Your task to perform on an android device: turn on priority inbox in the gmail app Image 0: 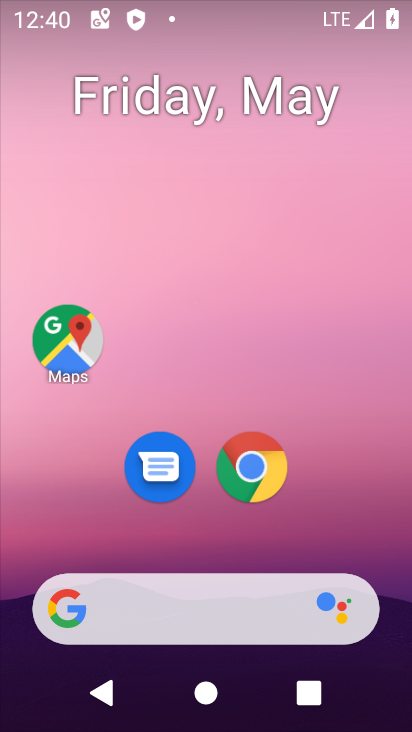
Step 0: drag from (343, 535) to (218, 91)
Your task to perform on an android device: turn on priority inbox in the gmail app Image 1: 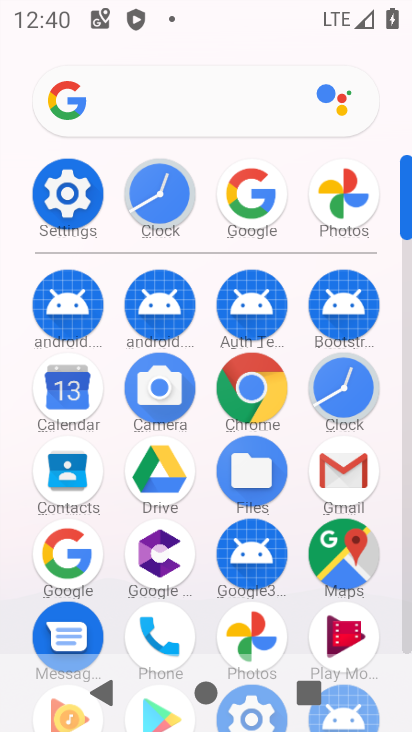
Step 1: click (342, 471)
Your task to perform on an android device: turn on priority inbox in the gmail app Image 2: 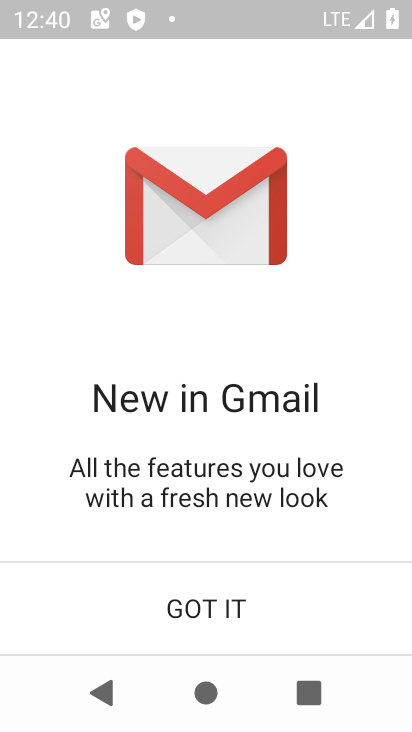
Step 2: click (220, 606)
Your task to perform on an android device: turn on priority inbox in the gmail app Image 3: 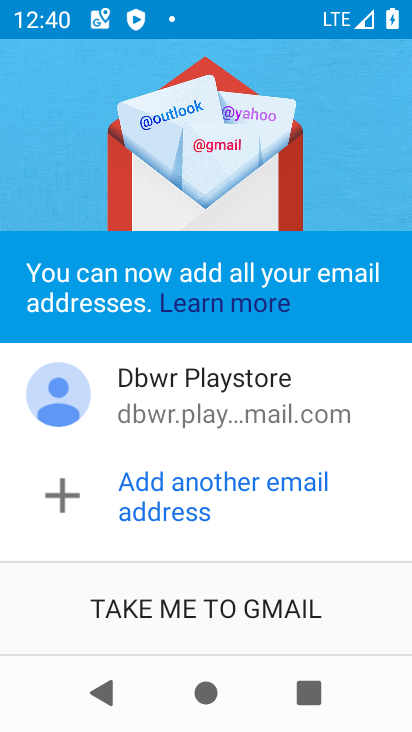
Step 3: click (220, 606)
Your task to perform on an android device: turn on priority inbox in the gmail app Image 4: 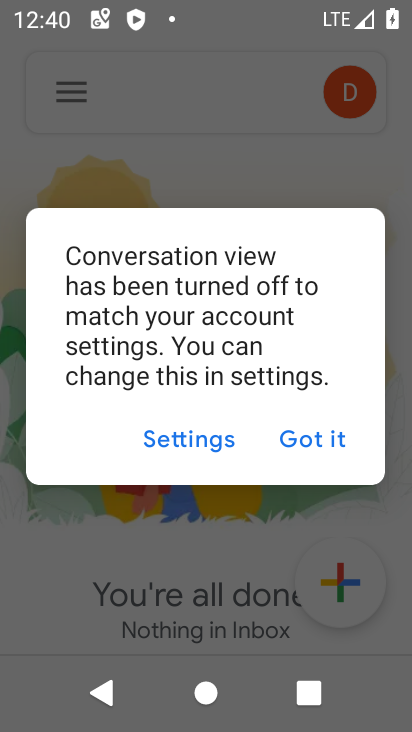
Step 4: click (322, 440)
Your task to perform on an android device: turn on priority inbox in the gmail app Image 5: 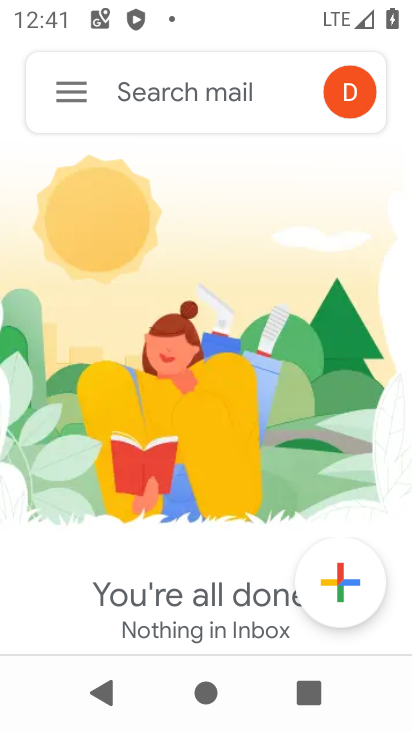
Step 5: click (71, 89)
Your task to perform on an android device: turn on priority inbox in the gmail app Image 6: 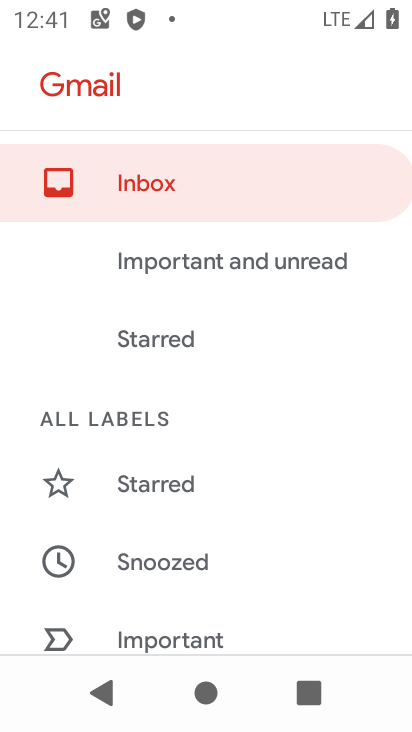
Step 6: drag from (216, 421) to (215, 243)
Your task to perform on an android device: turn on priority inbox in the gmail app Image 7: 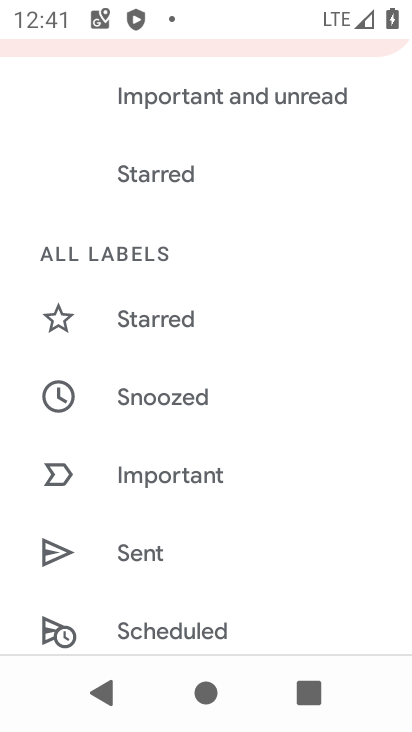
Step 7: drag from (207, 428) to (206, 249)
Your task to perform on an android device: turn on priority inbox in the gmail app Image 8: 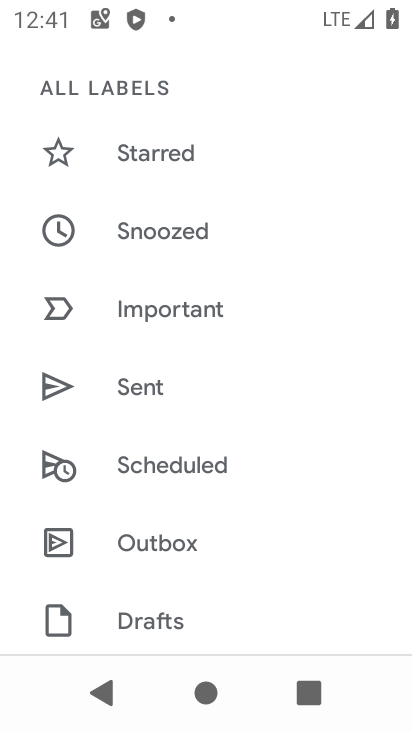
Step 8: drag from (173, 407) to (176, 240)
Your task to perform on an android device: turn on priority inbox in the gmail app Image 9: 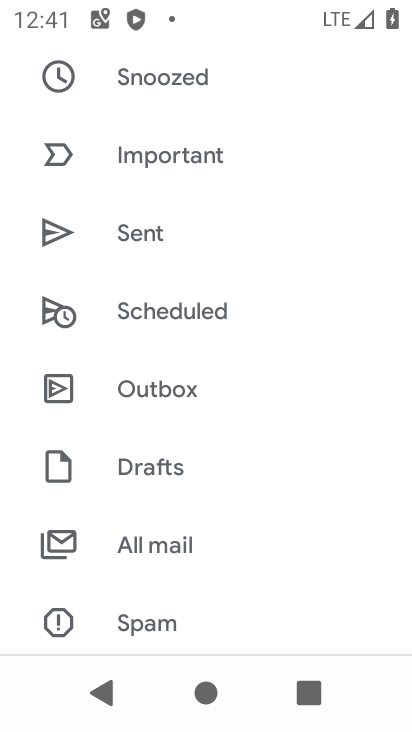
Step 9: drag from (147, 353) to (159, 223)
Your task to perform on an android device: turn on priority inbox in the gmail app Image 10: 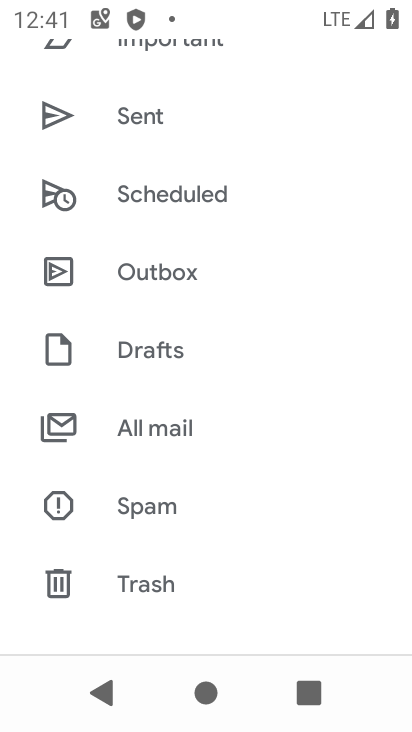
Step 10: drag from (166, 324) to (171, 184)
Your task to perform on an android device: turn on priority inbox in the gmail app Image 11: 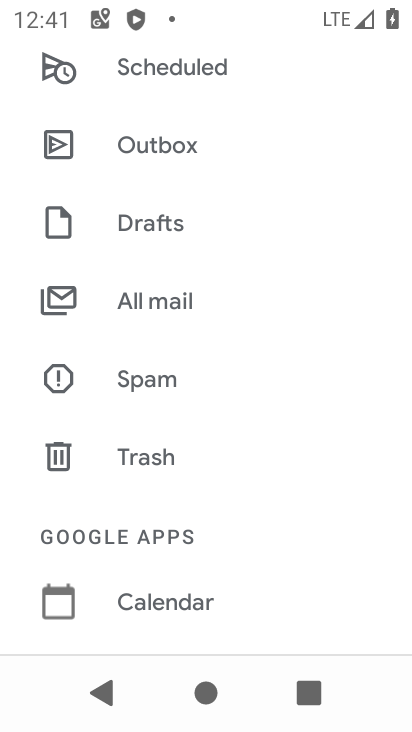
Step 11: drag from (150, 337) to (139, 163)
Your task to perform on an android device: turn on priority inbox in the gmail app Image 12: 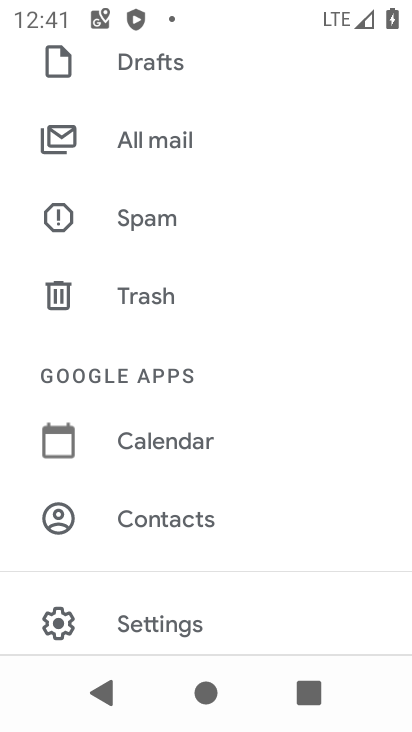
Step 12: drag from (153, 462) to (114, 213)
Your task to perform on an android device: turn on priority inbox in the gmail app Image 13: 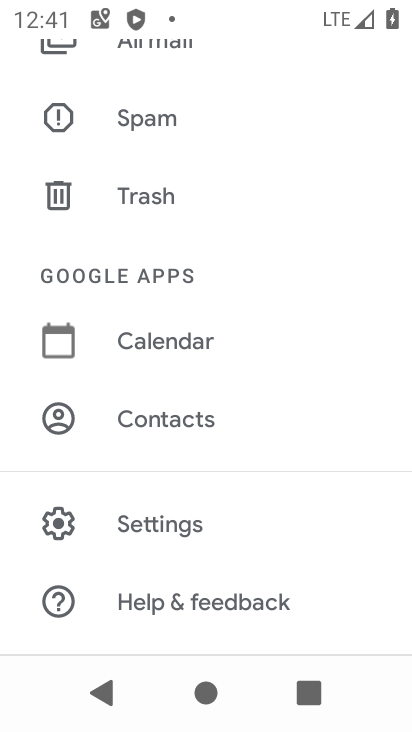
Step 13: click (188, 527)
Your task to perform on an android device: turn on priority inbox in the gmail app Image 14: 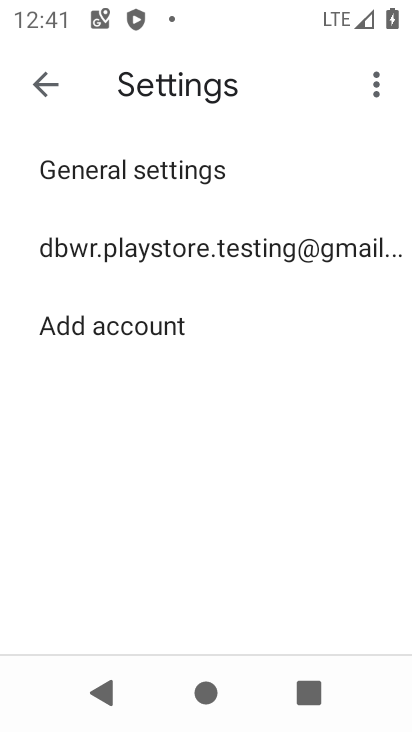
Step 14: click (238, 255)
Your task to perform on an android device: turn on priority inbox in the gmail app Image 15: 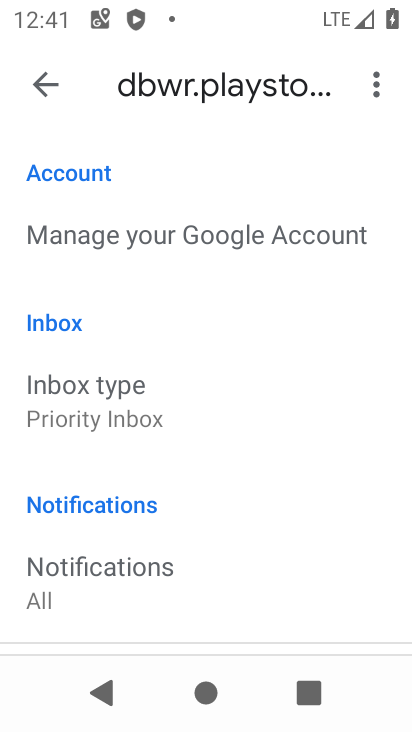
Step 15: click (105, 403)
Your task to perform on an android device: turn on priority inbox in the gmail app Image 16: 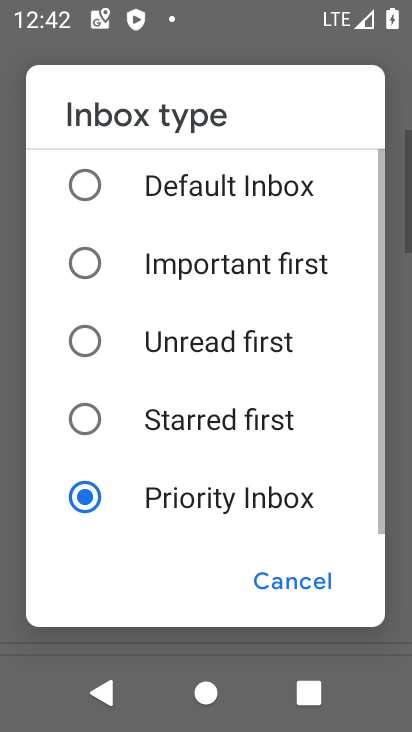
Step 16: click (81, 491)
Your task to perform on an android device: turn on priority inbox in the gmail app Image 17: 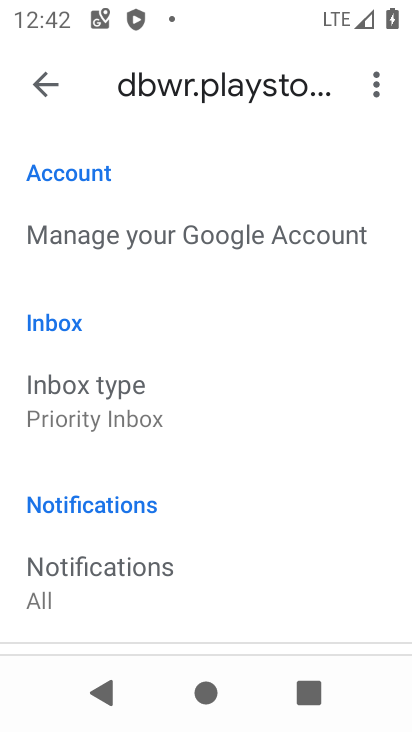
Step 17: task complete